Your task to perform on an android device: open a new tab in the chrome app Image 0: 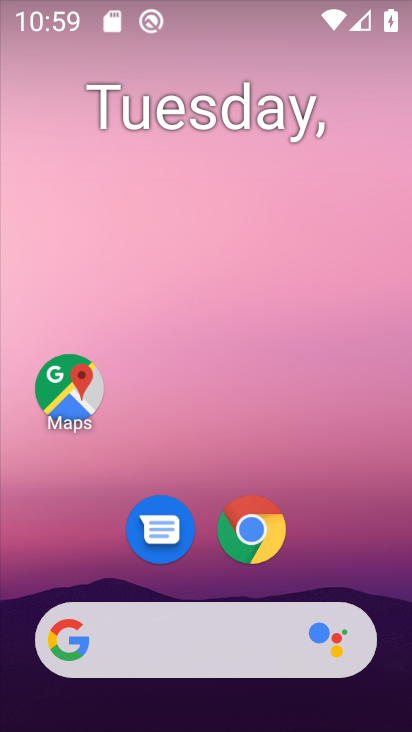
Step 0: click (266, 544)
Your task to perform on an android device: open a new tab in the chrome app Image 1: 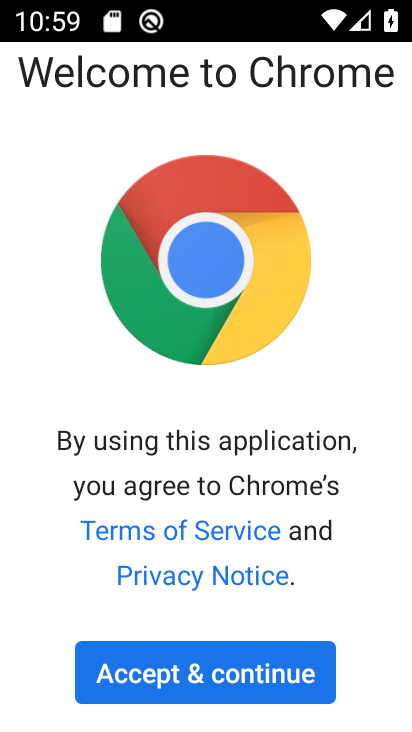
Step 1: click (216, 678)
Your task to perform on an android device: open a new tab in the chrome app Image 2: 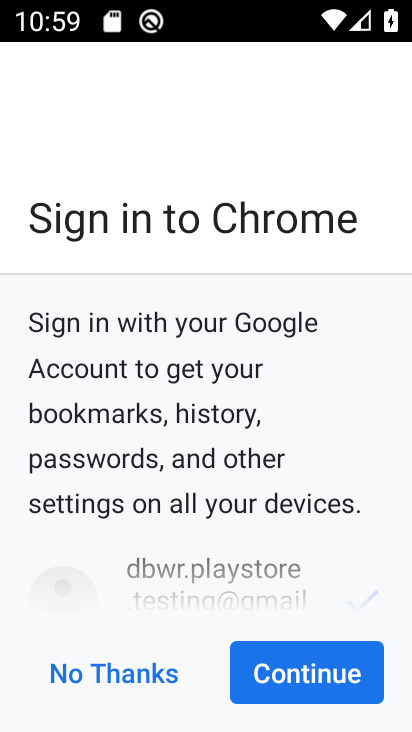
Step 2: click (216, 678)
Your task to perform on an android device: open a new tab in the chrome app Image 3: 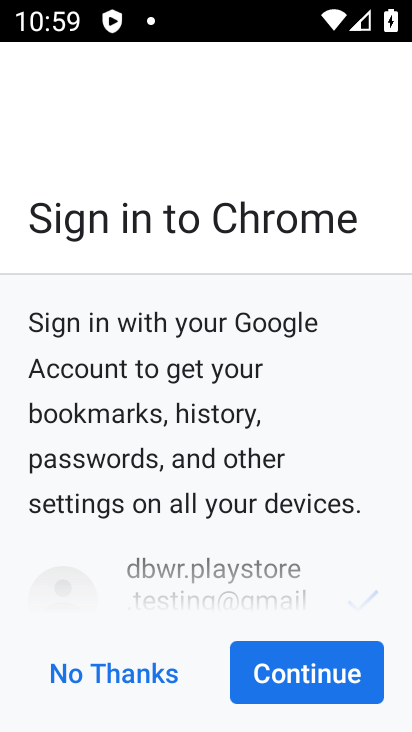
Step 3: click (252, 677)
Your task to perform on an android device: open a new tab in the chrome app Image 4: 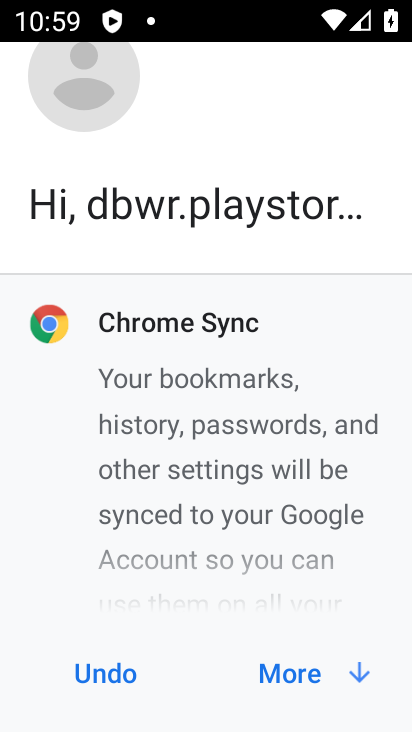
Step 4: click (300, 675)
Your task to perform on an android device: open a new tab in the chrome app Image 5: 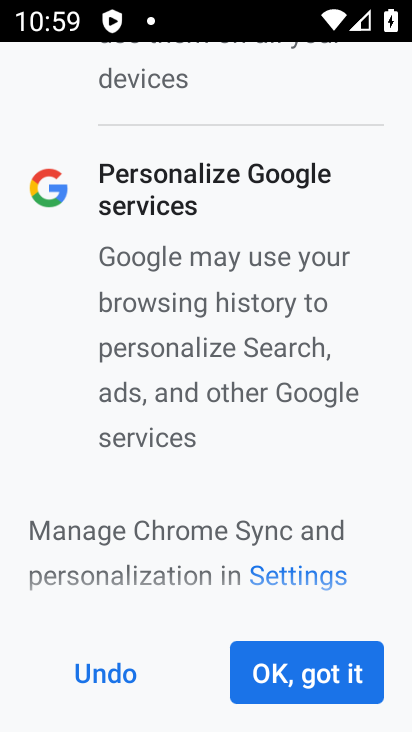
Step 5: click (284, 679)
Your task to perform on an android device: open a new tab in the chrome app Image 6: 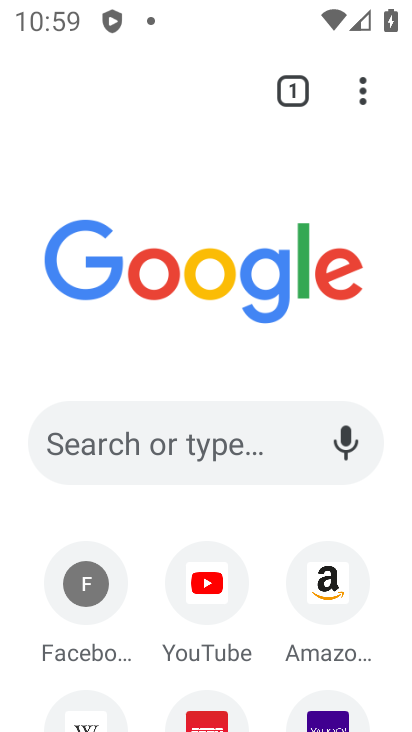
Step 6: click (366, 96)
Your task to perform on an android device: open a new tab in the chrome app Image 7: 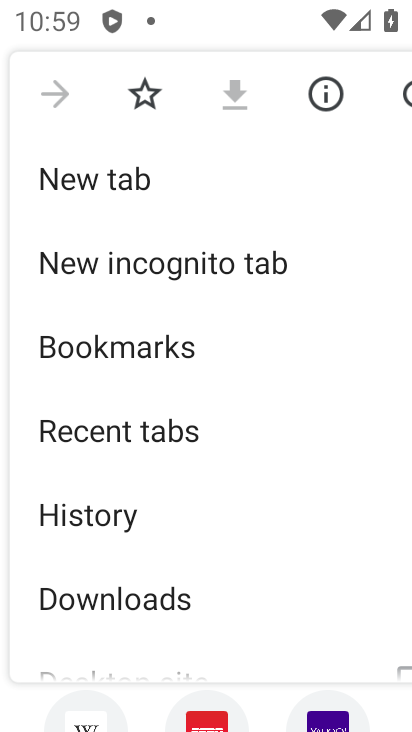
Step 7: click (133, 189)
Your task to perform on an android device: open a new tab in the chrome app Image 8: 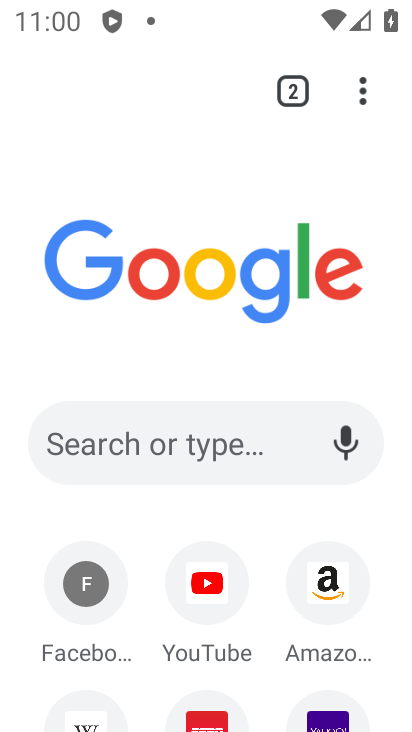
Step 8: task complete